Your task to perform on an android device: turn on translation in the chrome app Image 0: 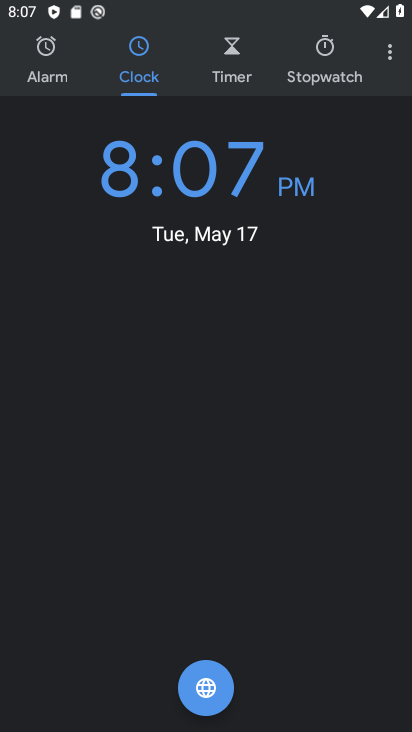
Step 0: press home button
Your task to perform on an android device: turn on translation in the chrome app Image 1: 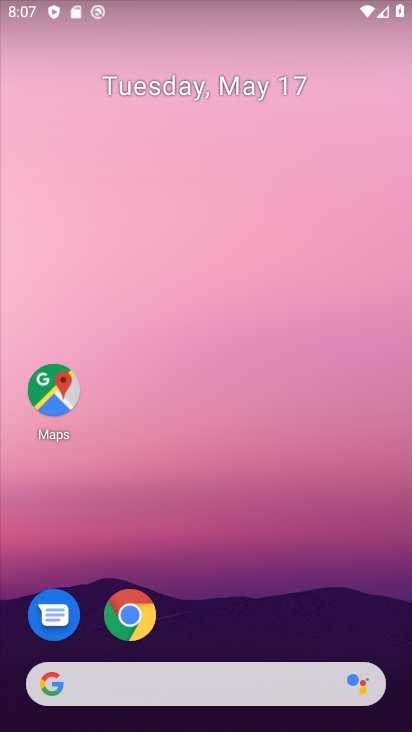
Step 1: click (126, 619)
Your task to perform on an android device: turn on translation in the chrome app Image 2: 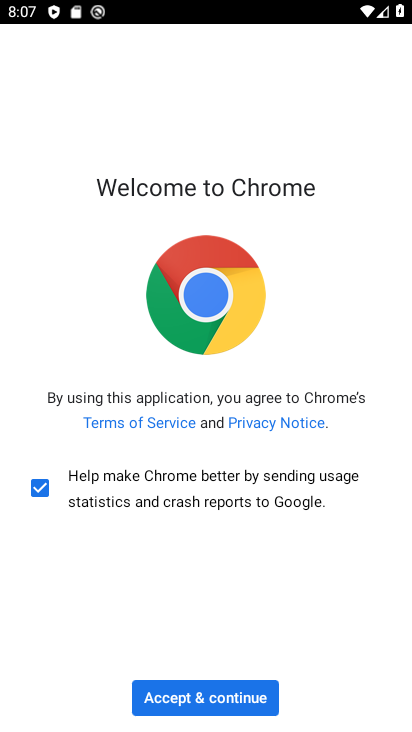
Step 2: click (195, 698)
Your task to perform on an android device: turn on translation in the chrome app Image 3: 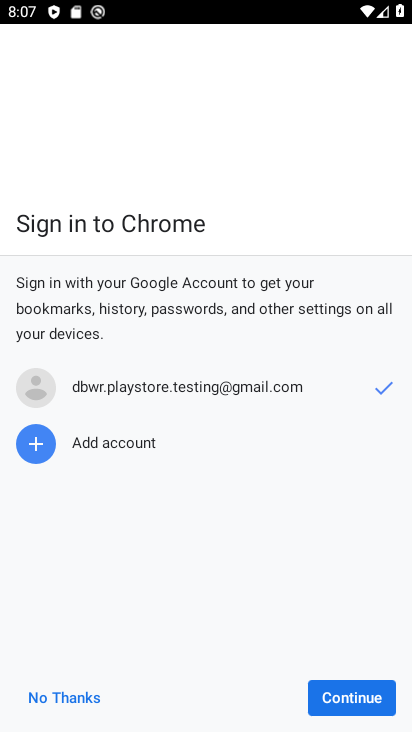
Step 3: click (338, 691)
Your task to perform on an android device: turn on translation in the chrome app Image 4: 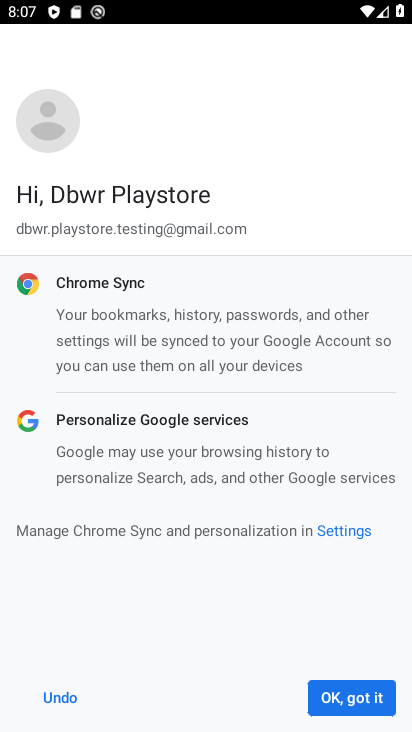
Step 4: click (338, 691)
Your task to perform on an android device: turn on translation in the chrome app Image 5: 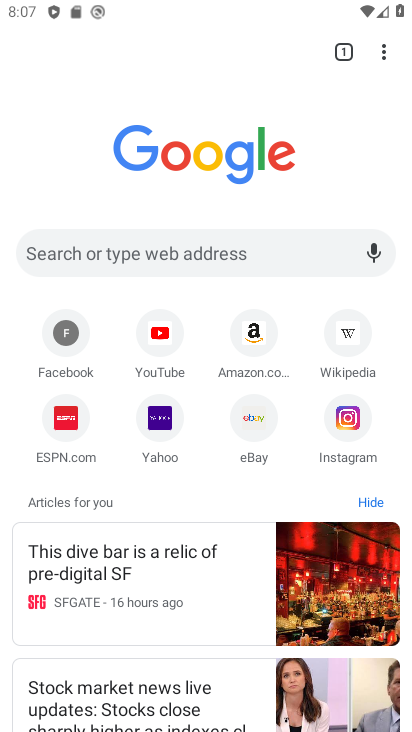
Step 5: click (386, 54)
Your task to perform on an android device: turn on translation in the chrome app Image 6: 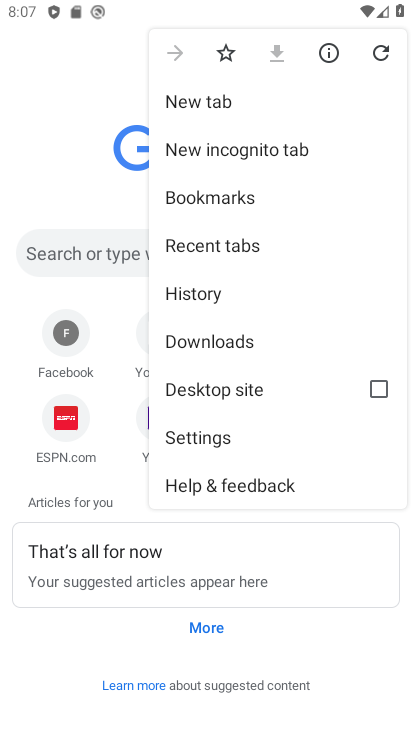
Step 6: click (223, 427)
Your task to perform on an android device: turn on translation in the chrome app Image 7: 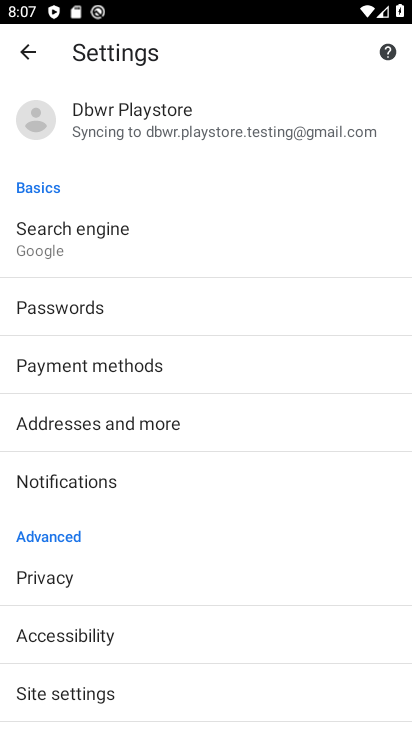
Step 7: drag from (188, 674) to (240, 231)
Your task to perform on an android device: turn on translation in the chrome app Image 8: 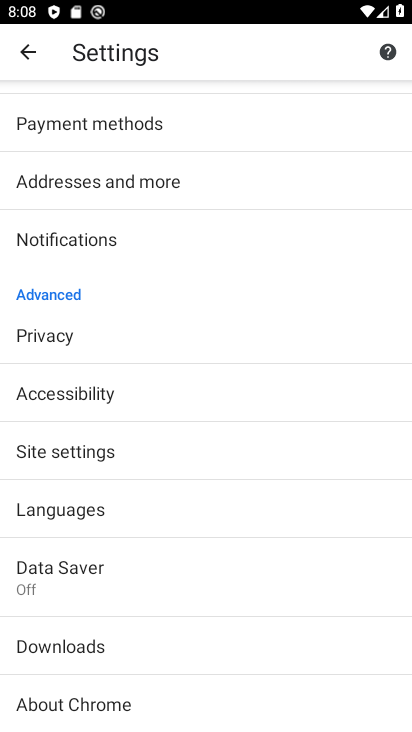
Step 8: click (62, 509)
Your task to perform on an android device: turn on translation in the chrome app Image 9: 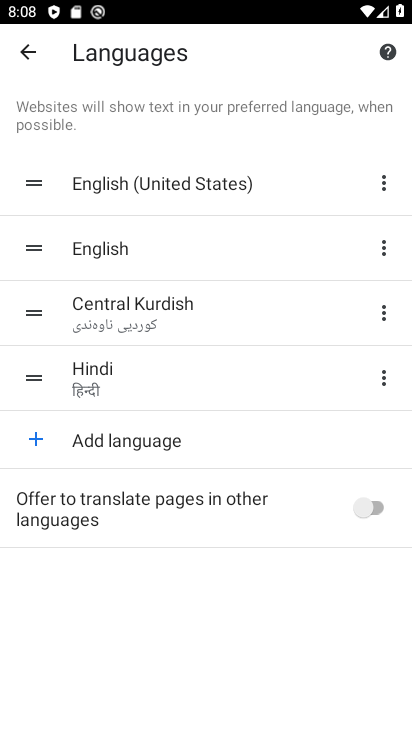
Step 9: click (379, 512)
Your task to perform on an android device: turn on translation in the chrome app Image 10: 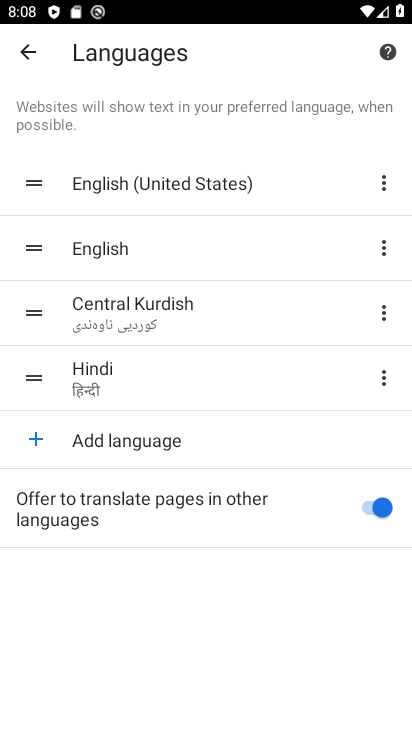
Step 10: task complete